Your task to perform on an android device: Open ESPN.com Image 0: 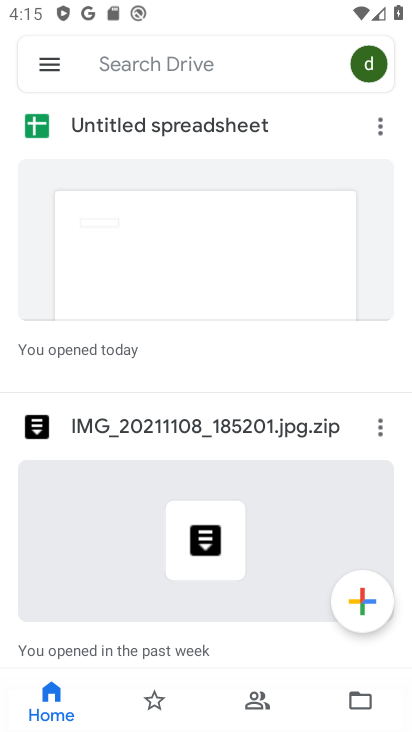
Step 0: press home button
Your task to perform on an android device: Open ESPN.com Image 1: 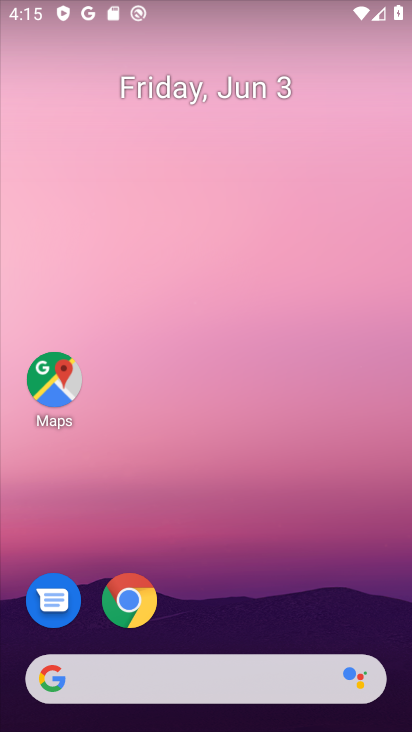
Step 1: click (130, 589)
Your task to perform on an android device: Open ESPN.com Image 2: 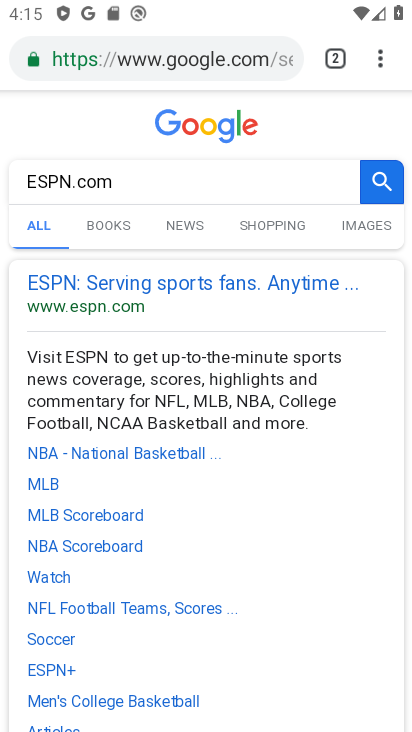
Step 2: click (293, 57)
Your task to perform on an android device: Open ESPN.com Image 3: 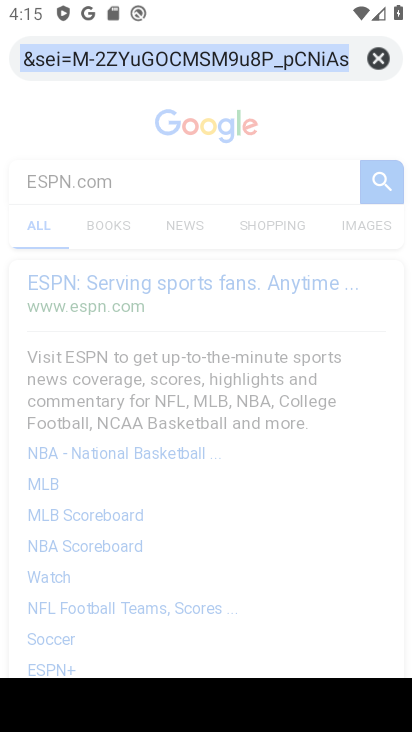
Step 3: click (382, 62)
Your task to perform on an android device: Open ESPN.com Image 4: 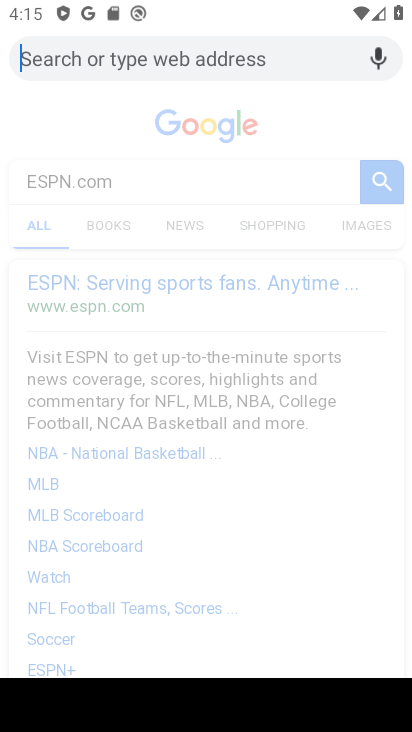
Step 4: type "ESPN.com"
Your task to perform on an android device: Open ESPN.com Image 5: 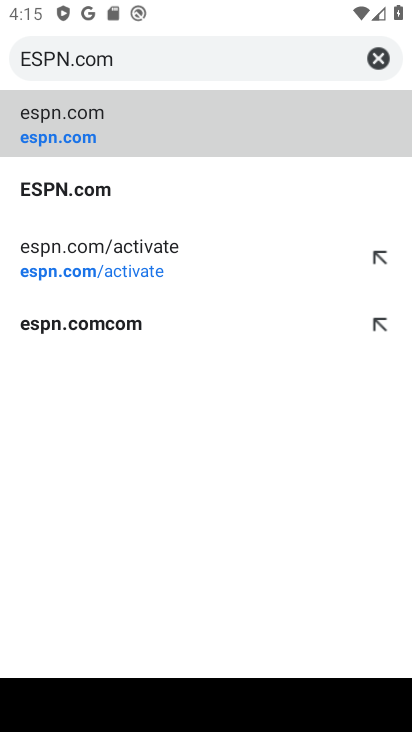
Step 5: click (52, 180)
Your task to perform on an android device: Open ESPN.com Image 6: 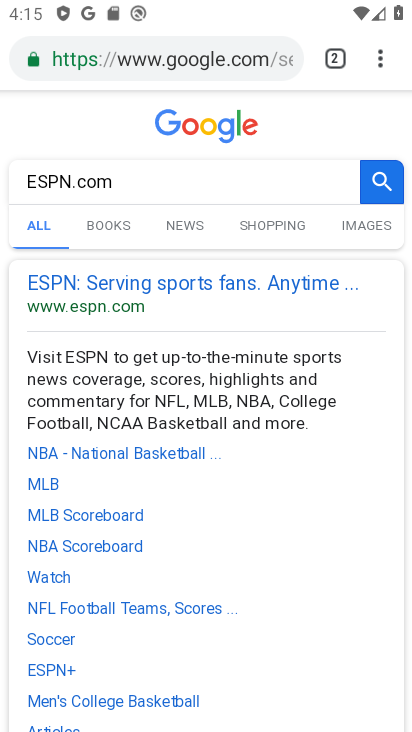
Step 6: task complete